Your task to perform on an android device: set the timer Image 0: 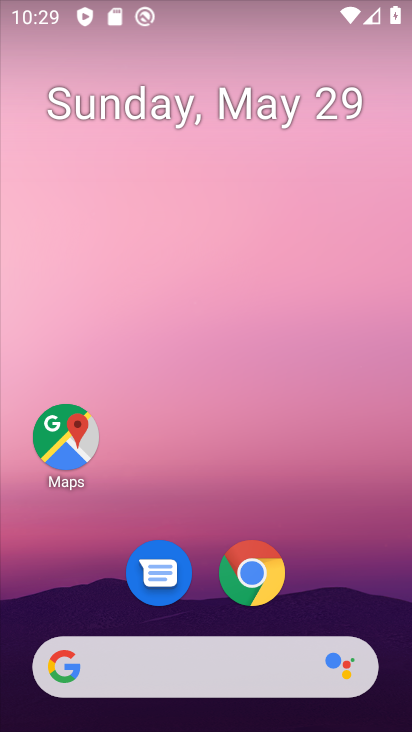
Step 0: click (68, 407)
Your task to perform on an android device: set the timer Image 1: 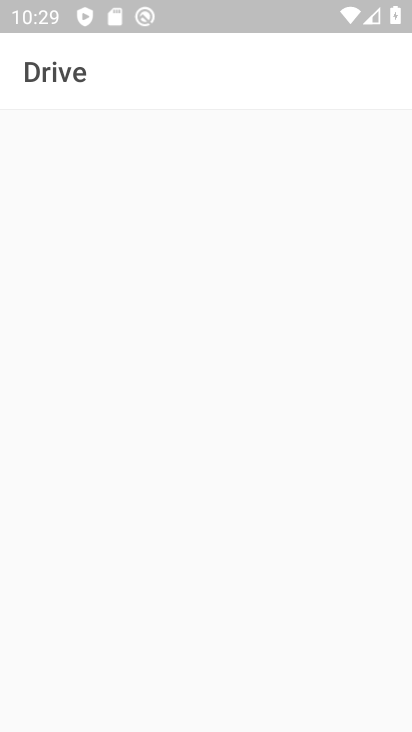
Step 1: press home button
Your task to perform on an android device: set the timer Image 2: 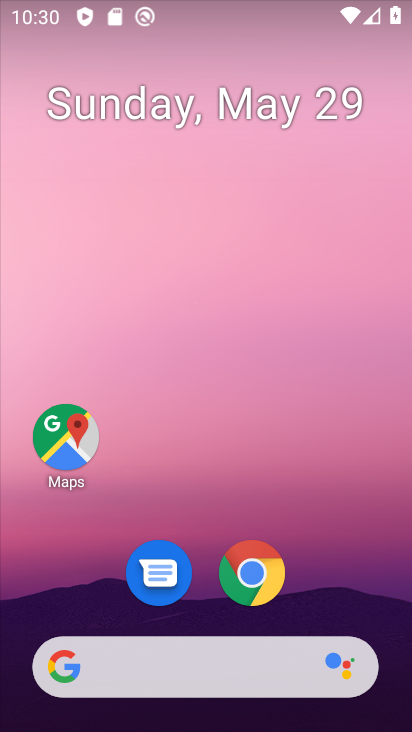
Step 2: drag from (312, 529) to (305, 491)
Your task to perform on an android device: set the timer Image 3: 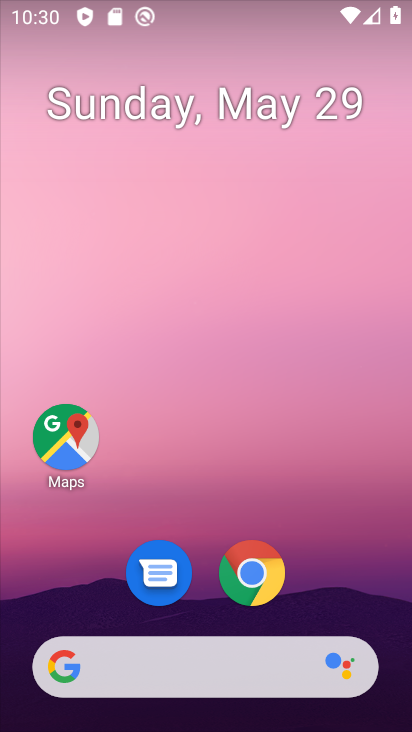
Step 3: drag from (377, 597) to (409, 168)
Your task to perform on an android device: set the timer Image 4: 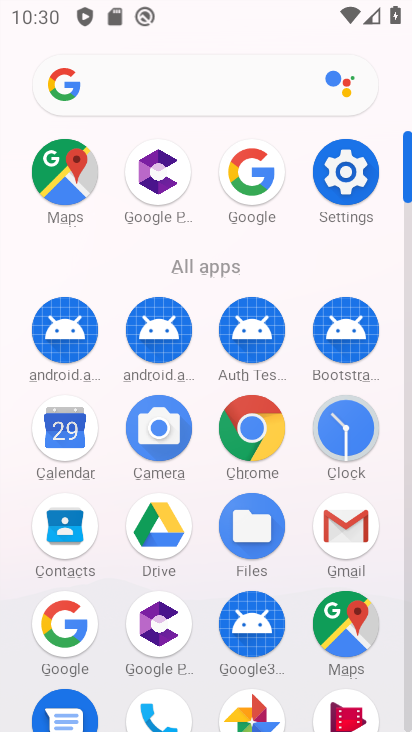
Step 4: click (343, 422)
Your task to perform on an android device: set the timer Image 5: 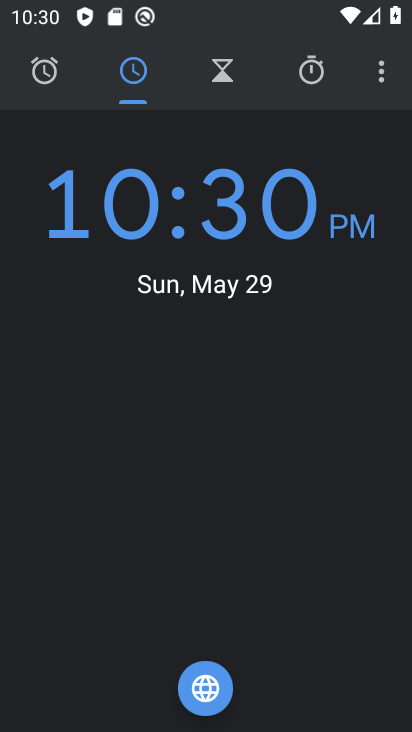
Step 5: click (234, 77)
Your task to perform on an android device: set the timer Image 6: 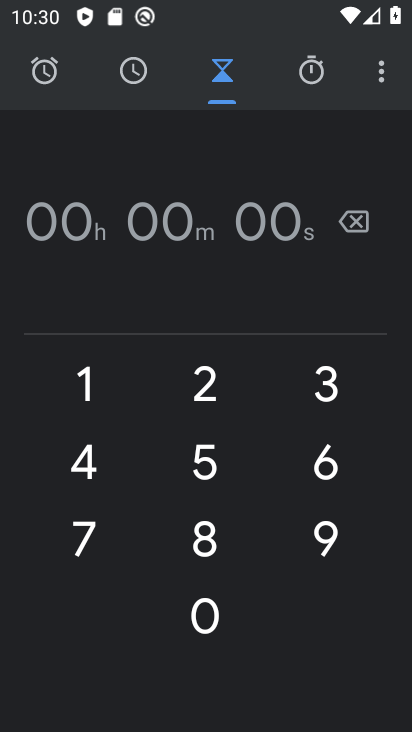
Step 6: task complete